Your task to perform on an android device: Check the weather Image 0: 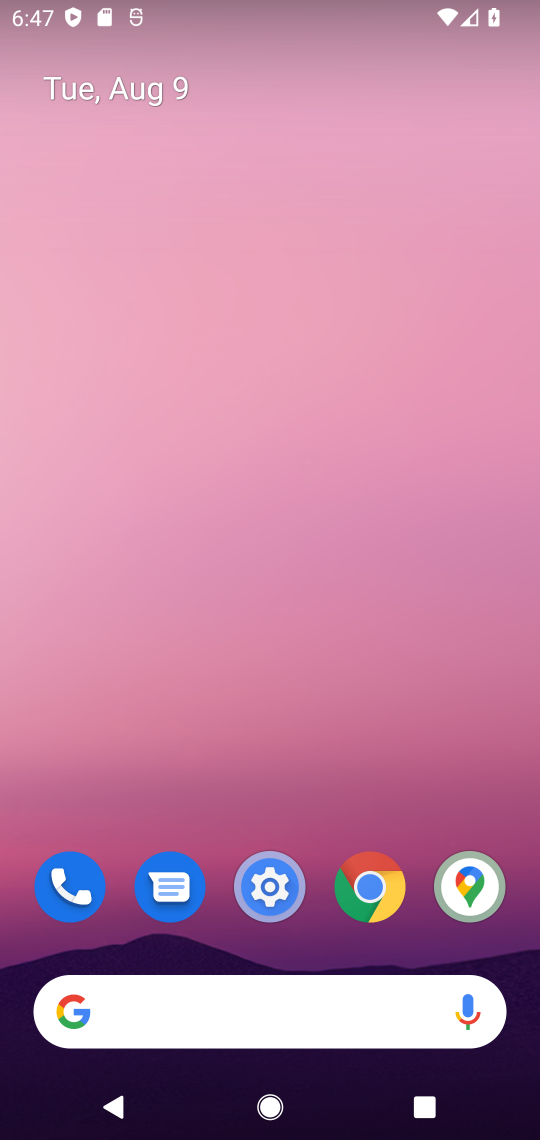
Step 0: click (251, 1012)
Your task to perform on an android device: Check the weather Image 1: 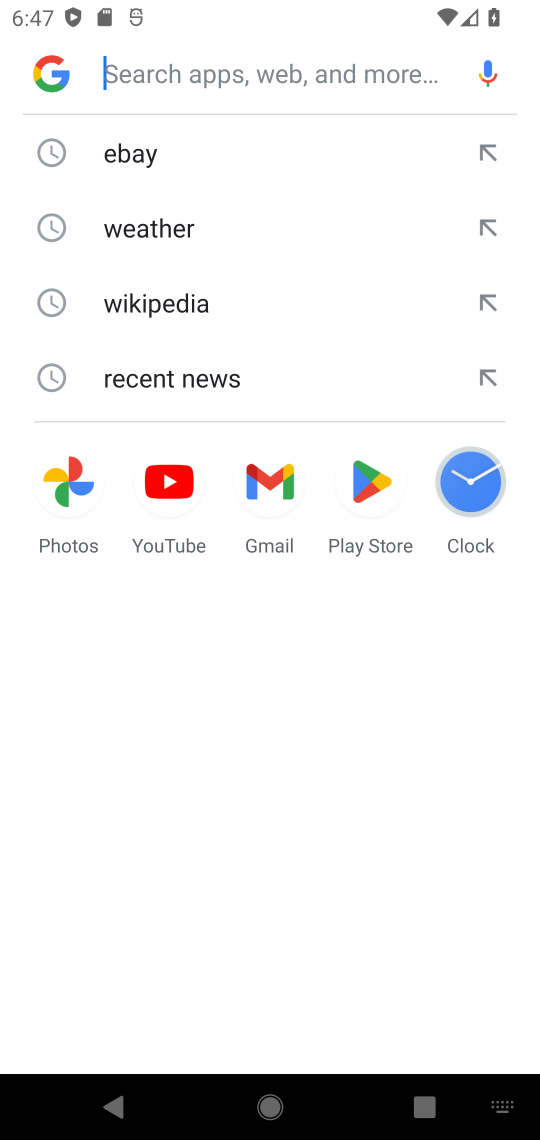
Step 1: click (151, 226)
Your task to perform on an android device: Check the weather Image 2: 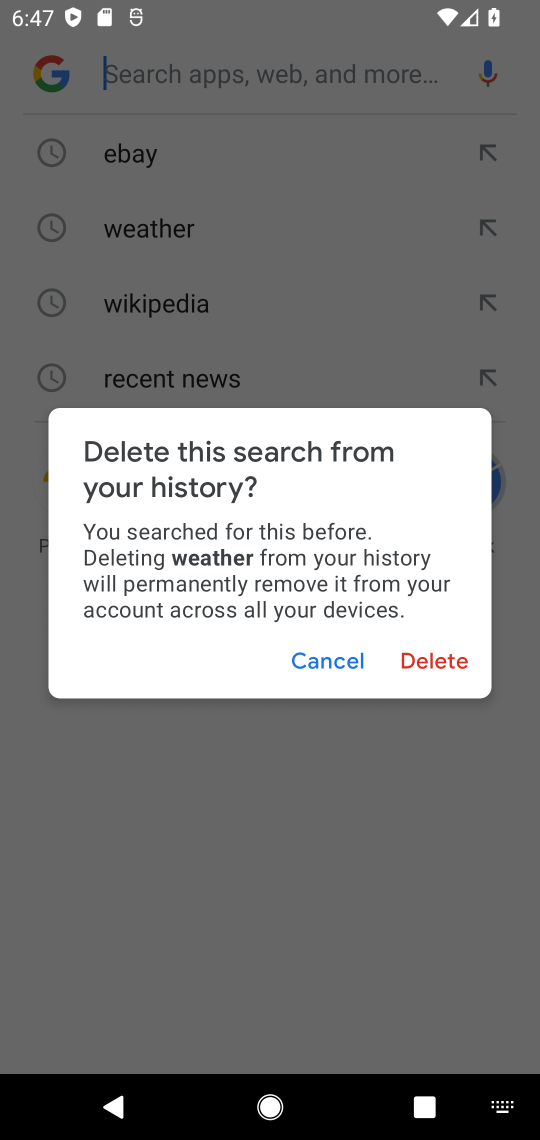
Step 2: click (340, 654)
Your task to perform on an android device: Check the weather Image 3: 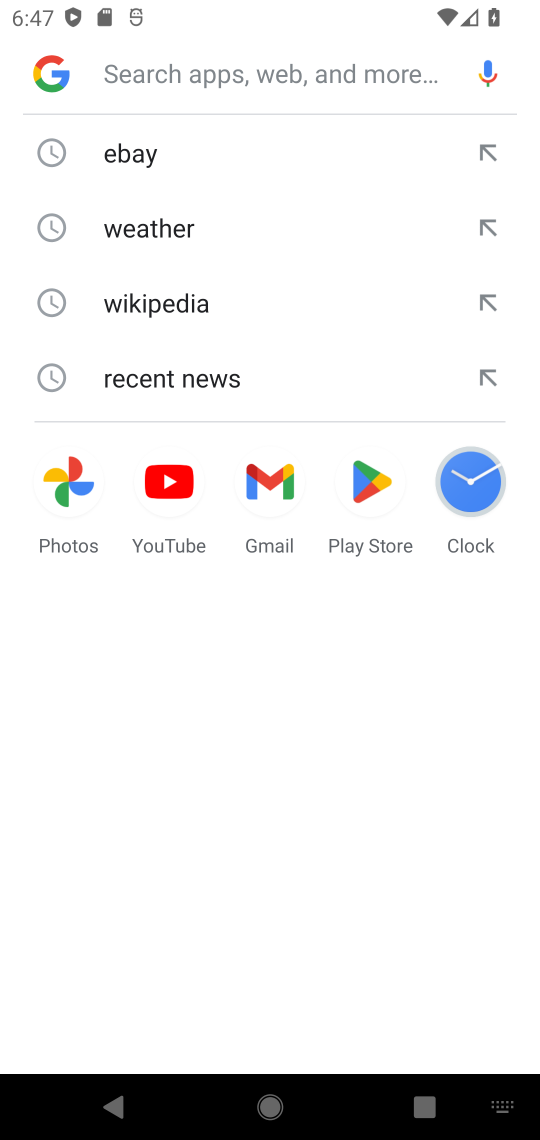
Step 3: click (269, 220)
Your task to perform on an android device: Check the weather Image 4: 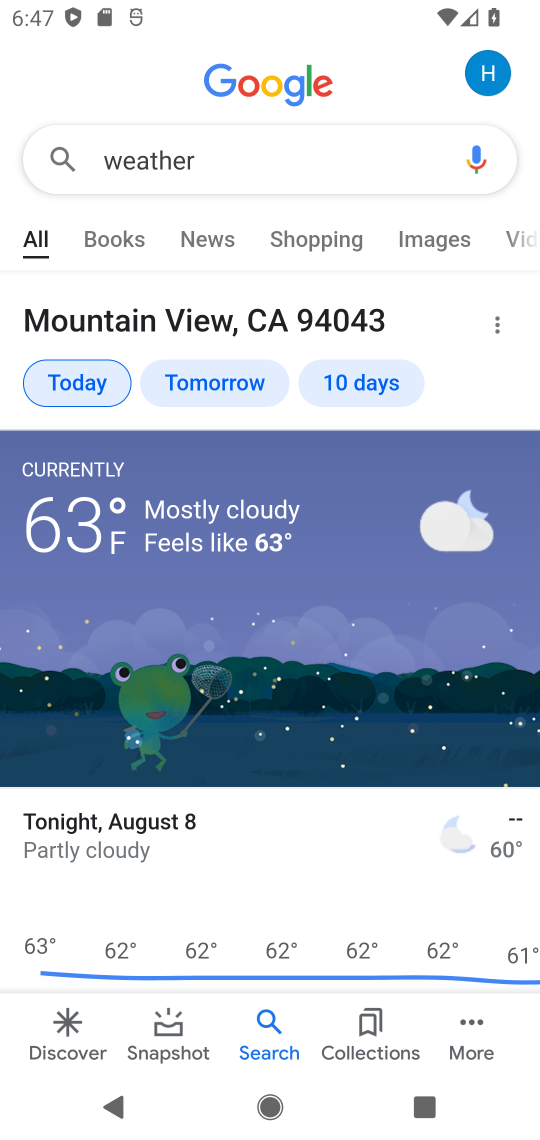
Step 4: click (108, 378)
Your task to perform on an android device: Check the weather Image 5: 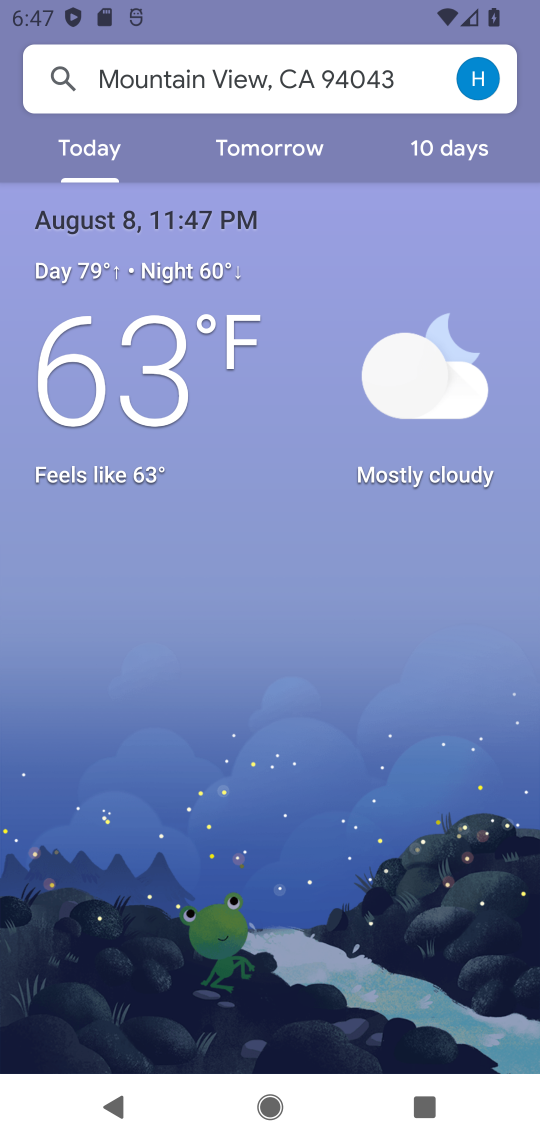
Step 5: task complete